Your task to perform on an android device: Open battery settings Image 0: 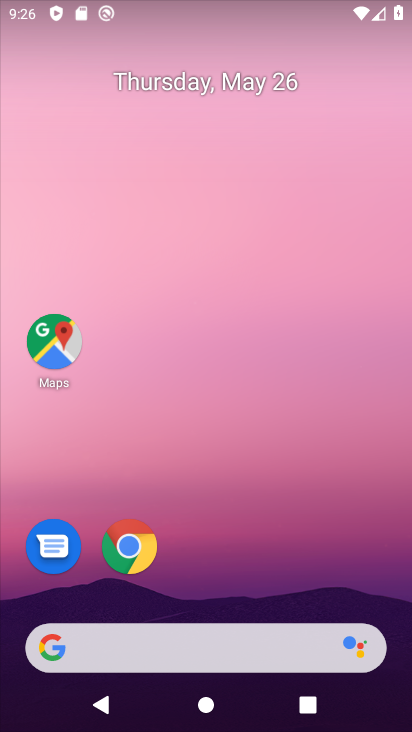
Step 0: drag from (289, 422) to (270, 185)
Your task to perform on an android device: Open battery settings Image 1: 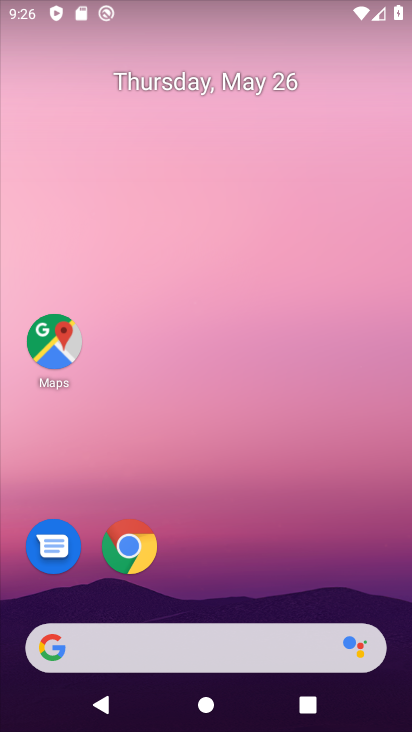
Step 1: drag from (318, 546) to (286, 126)
Your task to perform on an android device: Open battery settings Image 2: 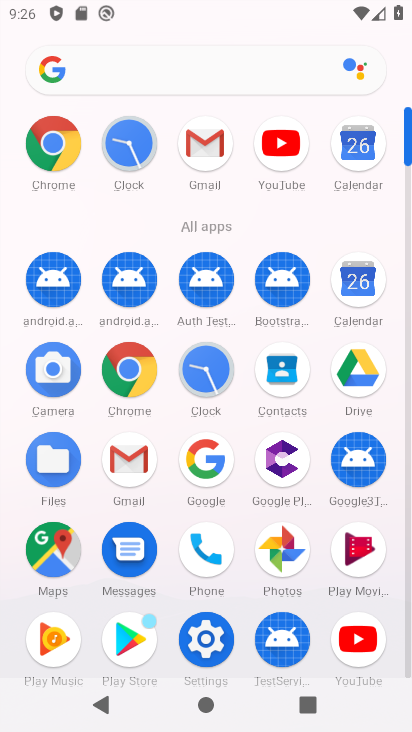
Step 2: click (198, 627)
Your task to perform on an android device: Open battery settings Image 3: 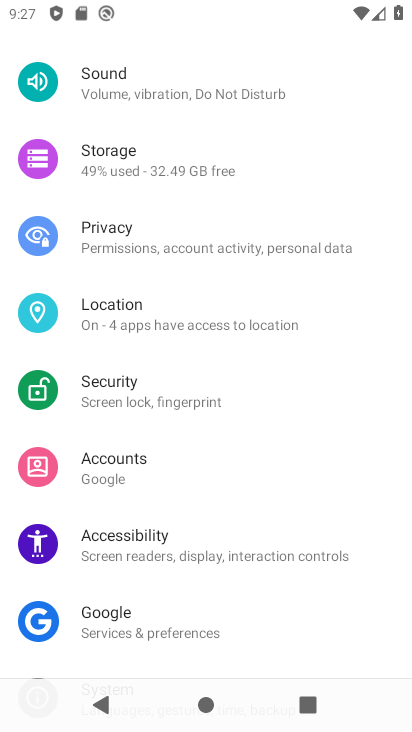
Step 3: drag from (206, 173) to (243, 512)
Your task to perform on an android device: Open battery settings Image 4: 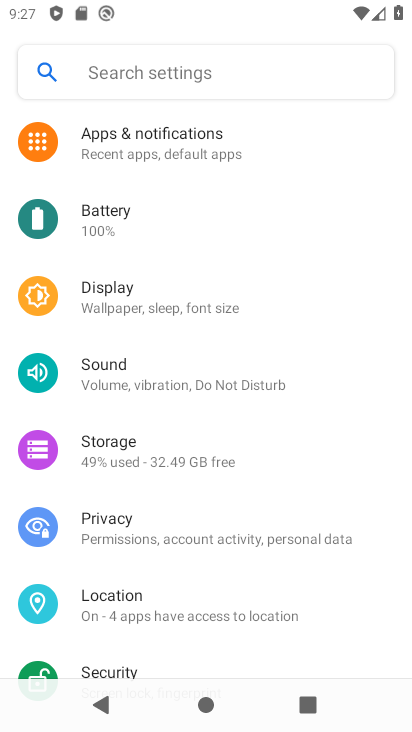
Step 4: click (128, 215)
Your task to perform on an android device: Open battery settings Image 5: 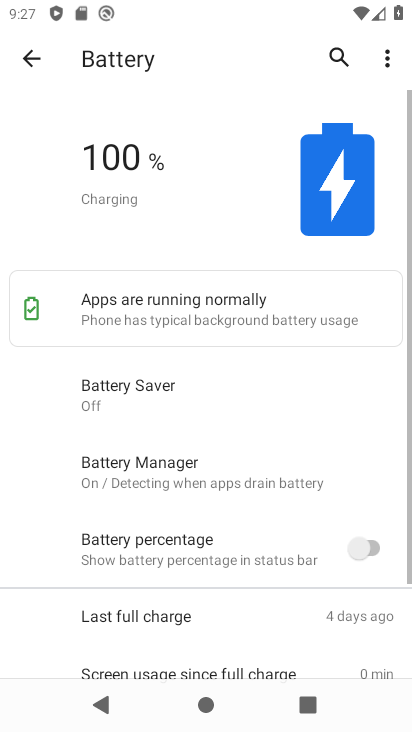
Step 5: task complete